Your task to perform on an android device: change text size in settings app Image 0: 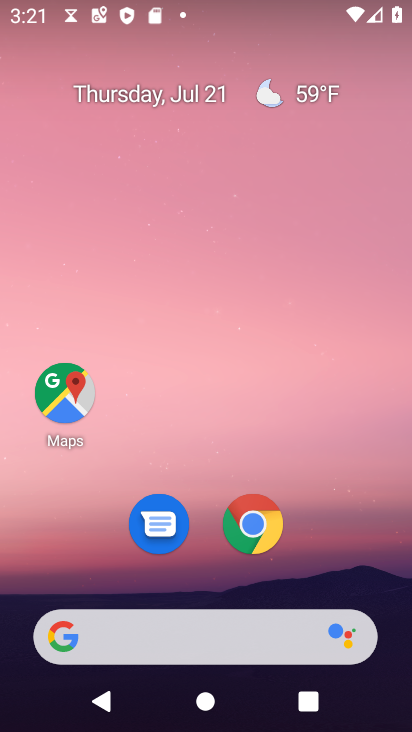
Step 0: press home button
Your task to perform on an android device: change text size in settings app Image 1: 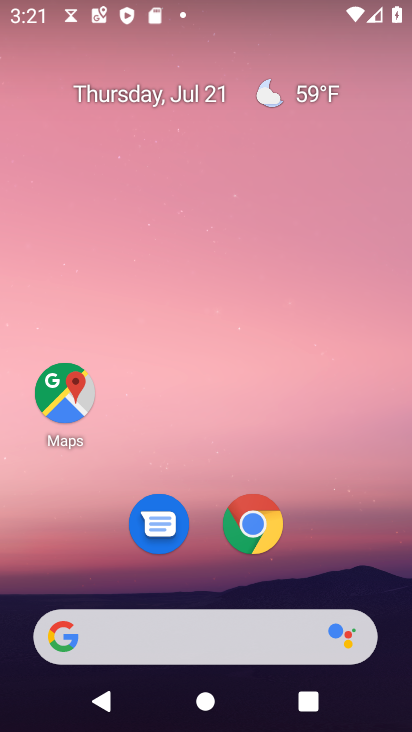
Step 1: drag from (194, 633) to (237, 148)
Your task to perform on an android device: change text size in settings app Image 2: 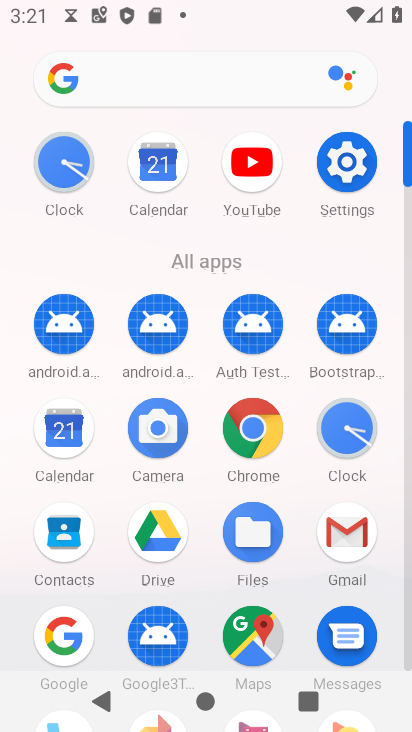
Step 2: click (343, 164)
Your task to perform on an android device: change text size in settings app Image 3: 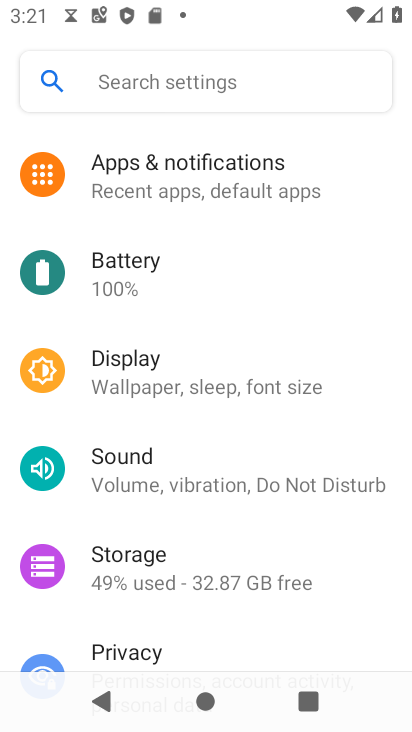
Step 3: click (165, 366)
Your task to perform on an android device: change text size in settings app Image 4: 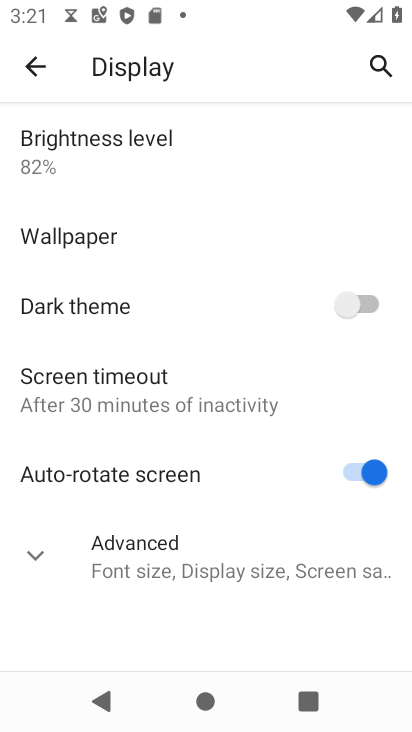
Step 4: click (161, 545)
Your task to perform on an android device: change text size in settings app Image 5: 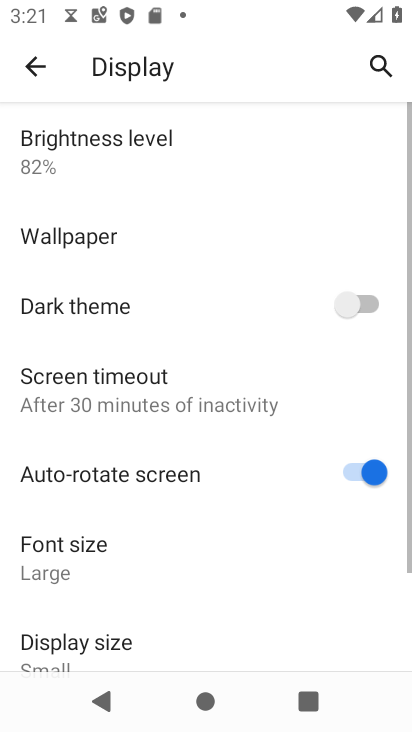
Step 5: drag from (218, 585) to (257, 207)
Your task to perform on an android device: change text size in settings app Image 6: 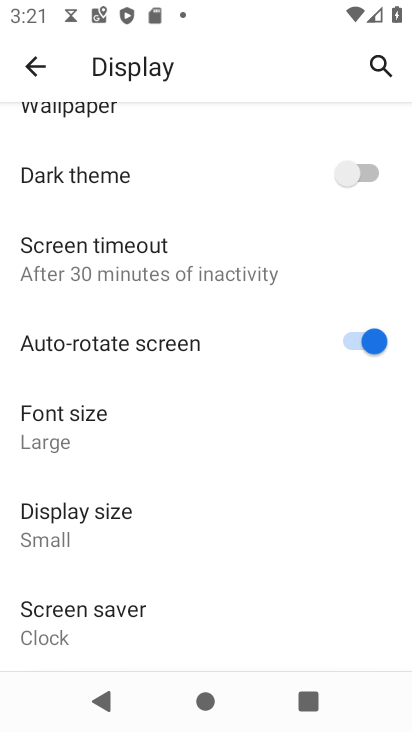
Step 6: click (72, 407)
Your task to perform on an android device: change text size in settings app Image 7: 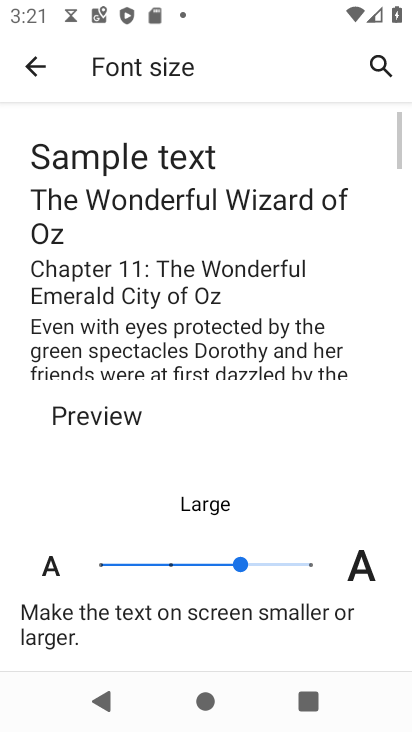
Step 7: click (173, 560)
Your task to perform on an android device: change text size in settings app Image 8: 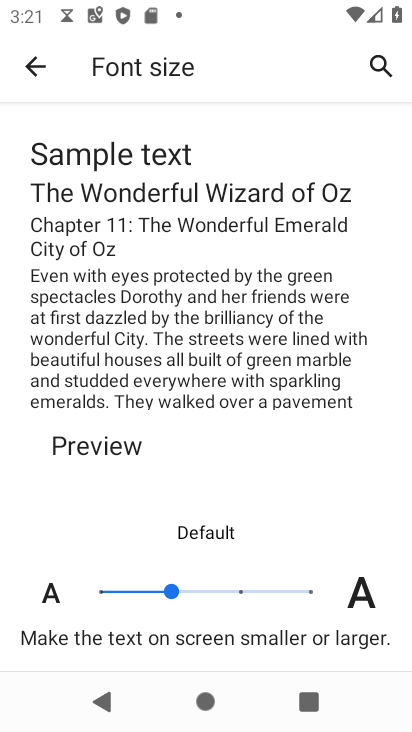
Step 8: task complete